Your task to perform on an android device: stop showing notifications on the lock screen Image 0: 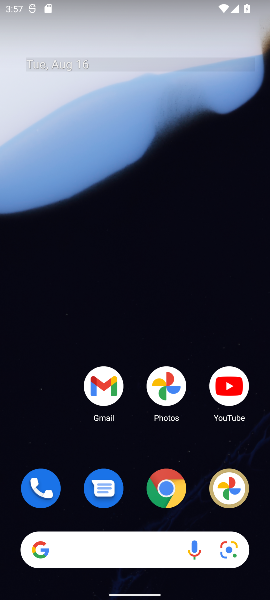
Step 0: drag from (52, 411) to (71, 178)
Your task to perform on an android device: stop showing notifications on the lock screen Image 1: 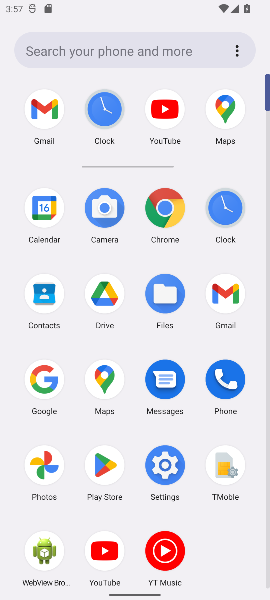
Step 1: click (163, 458)
Your task to perform on an android device: stop showing notifications on the lock screen Image 2: 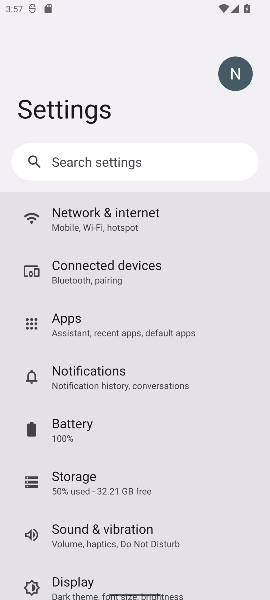
Step 2: task complete